Your task to perform on an android device: uninstall "WhatsApp Messenger" Image 0: 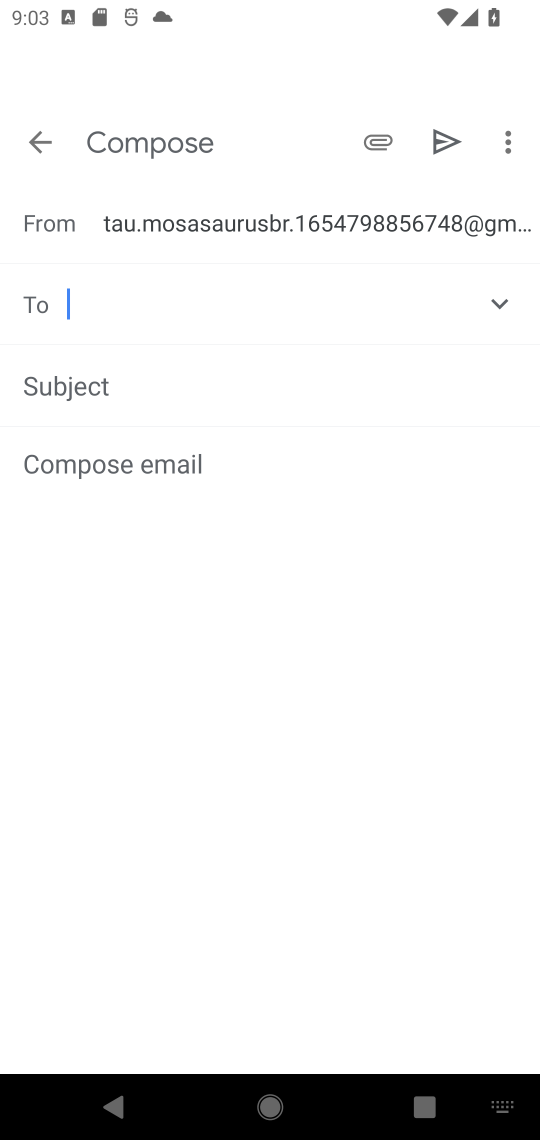
Step 0: press home button
Your task to perform on an android device: uninstall "WhatsApp Messenger" Image 1: 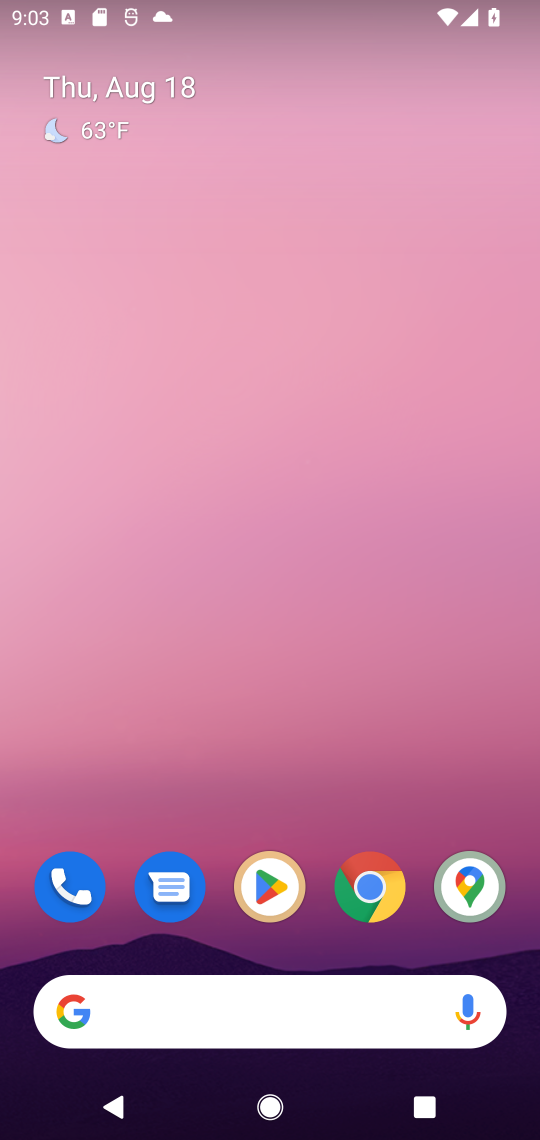
Step 1: click (277, 887)
Your task to perform on an android device: uninstall "WhatsApp Messenger" Image 2: 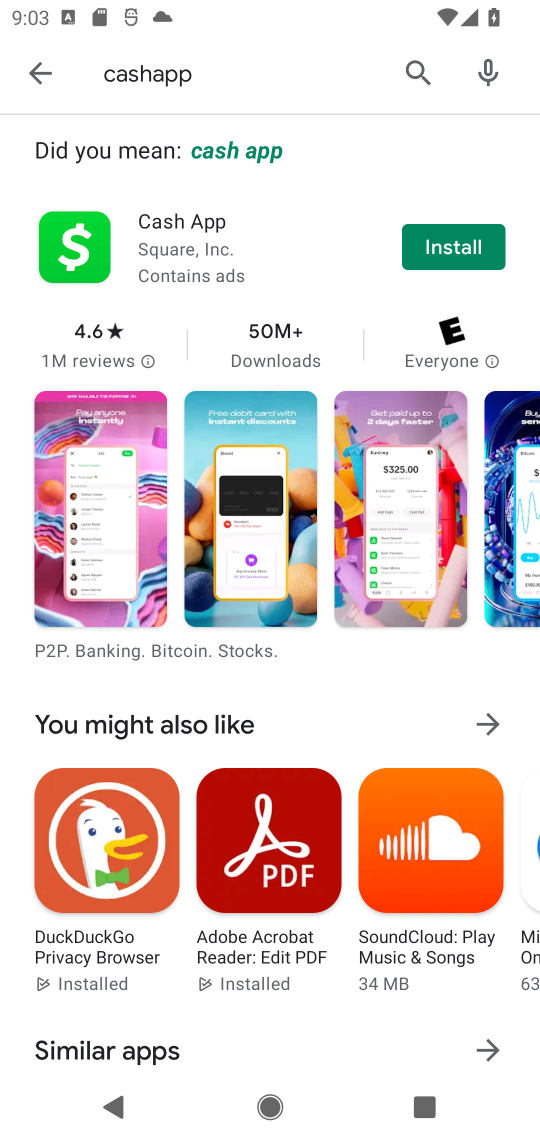
Step 2: click (412, 77)
Your task to perform on an android device: uninstall "WhatsApp Messenger" Image 3: 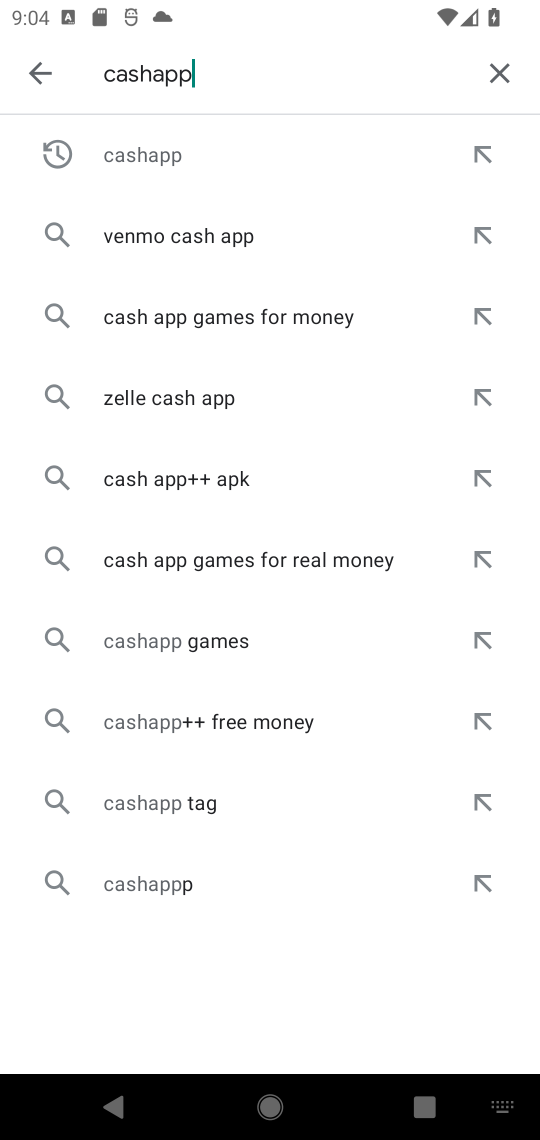
Step 3: click (493, 67)
Your task to perform on an android device: uninstall "WhatsApp Messenger" Image 4: 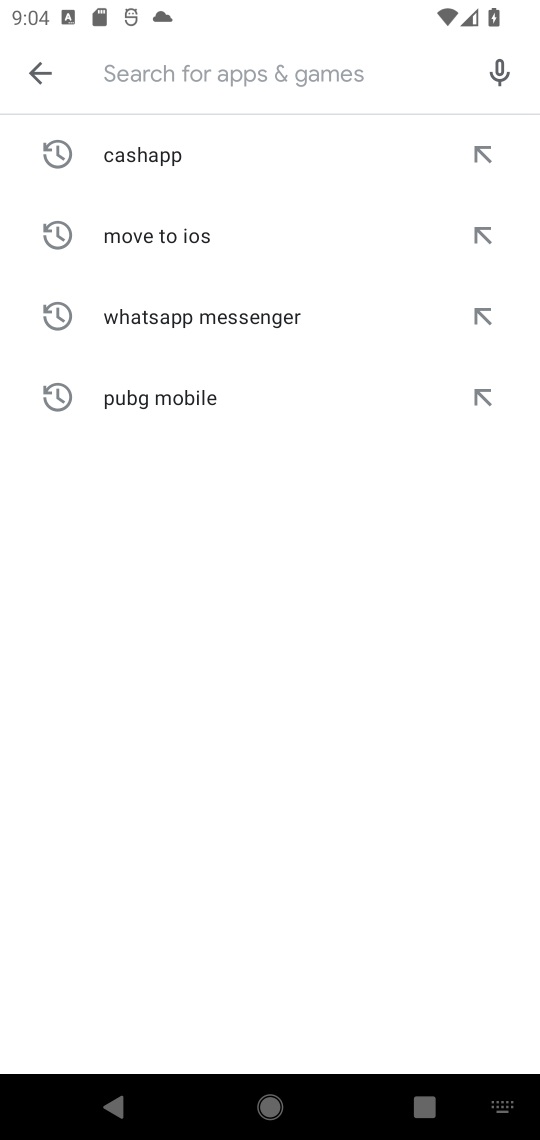
Step 4: type "WhatsApp Messenger"
Your task to perform on an android device: uninstall "WhatsApp Messenger" Image 5: 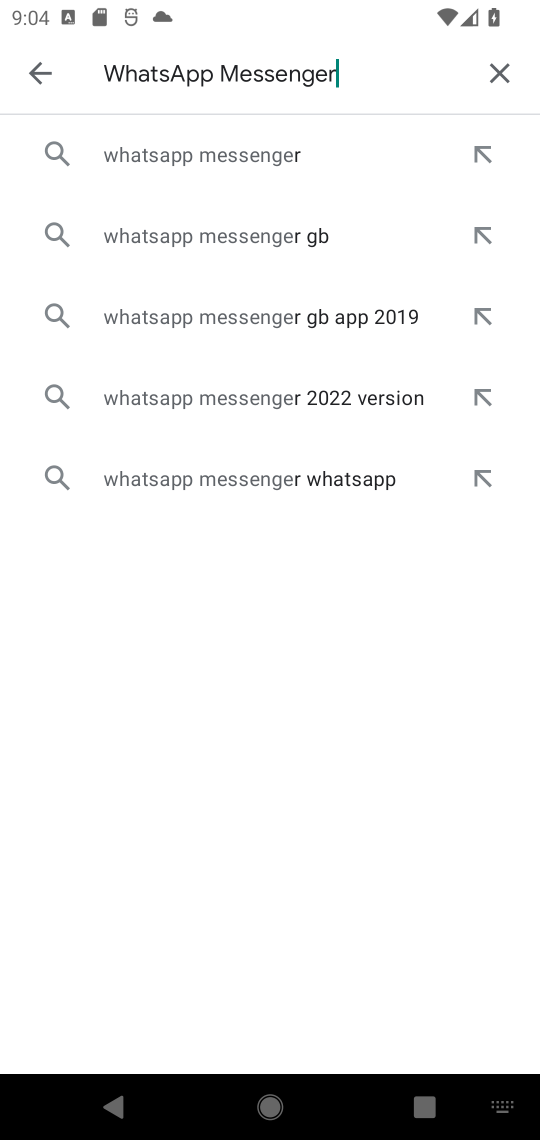
Step 5: type ""
Your task to perform on an android device: uninstall "WhatsApp Messenger" Image 6: 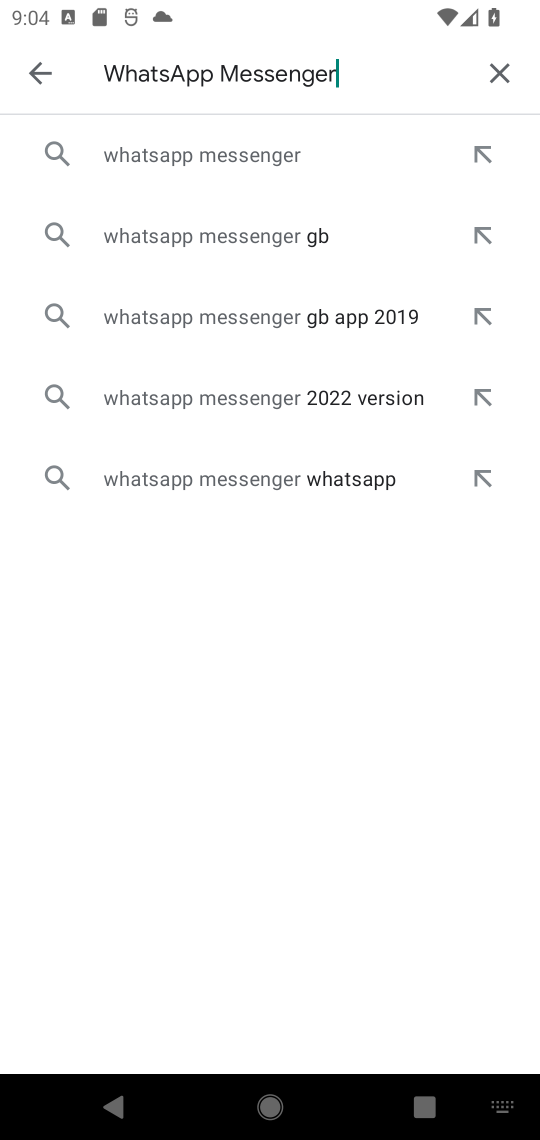
Step 6: click (175, 151)
Your task to perform on an android device: uninstall "WhatsApp Messenger" Image 7: 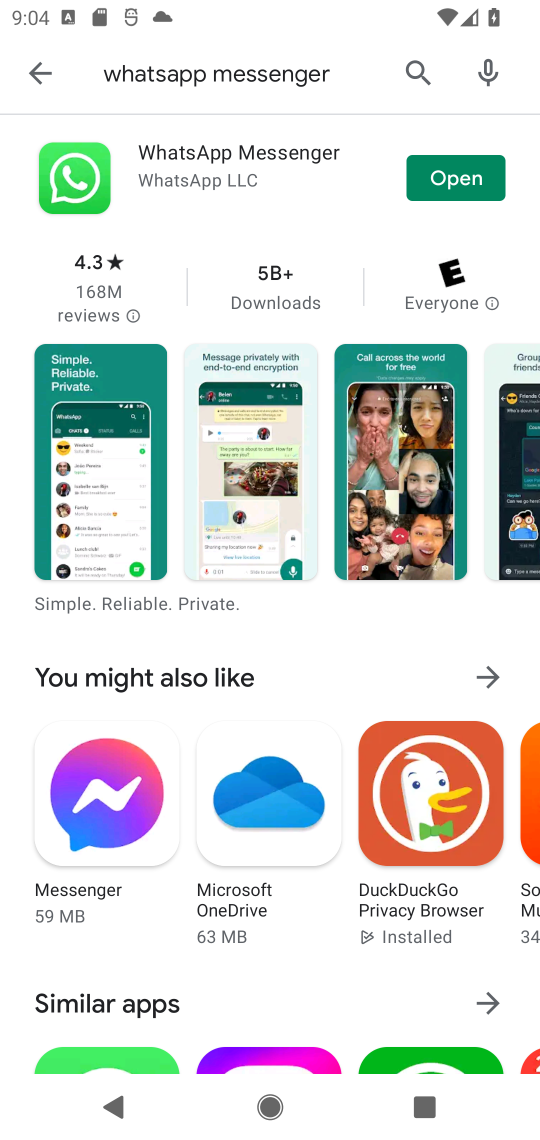
Step 7: click (170, 150)
Your task to perform on an android device: uninstall "WhatsApp Messenger" Image 8: 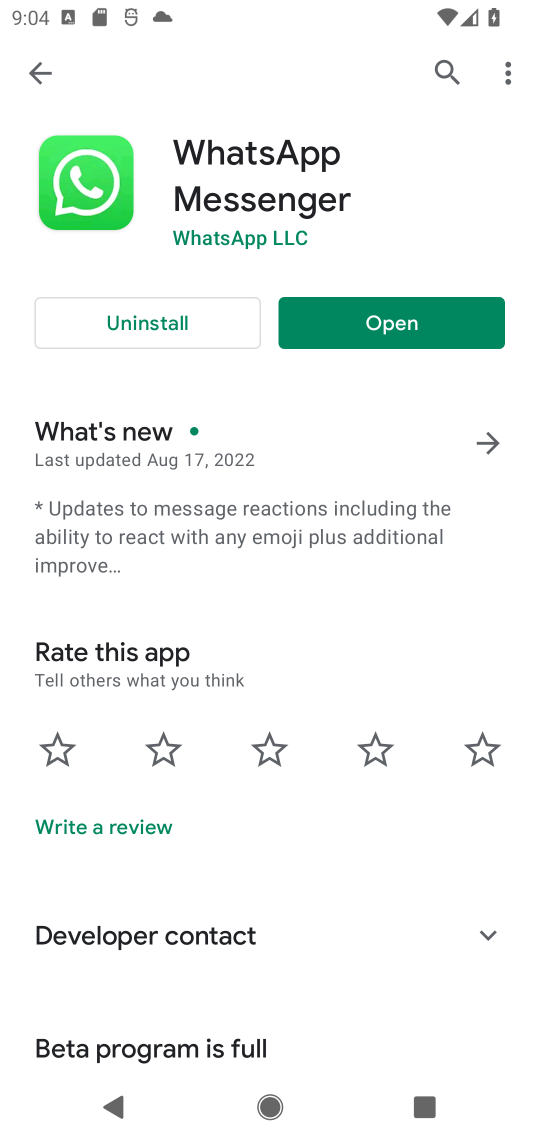
Step 8: click (137, 319)
Your task to perform on an android device: uninstall "WhatsApp Messenger" Image 9: 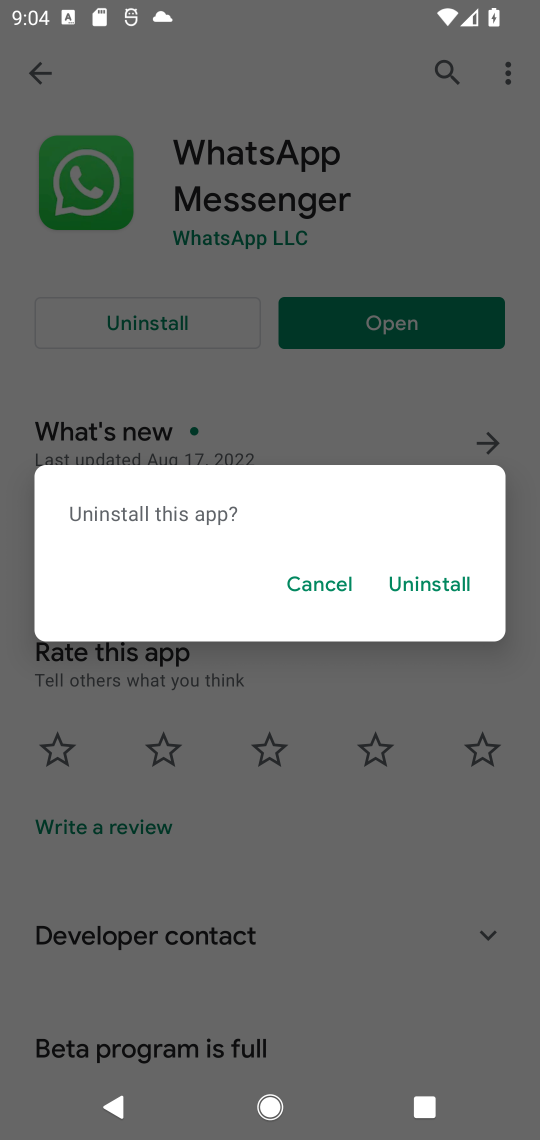
Step 9: click (414, 575)
Your task to perform on an android device: uninstall "WhatsApp Messenger" Image 10: 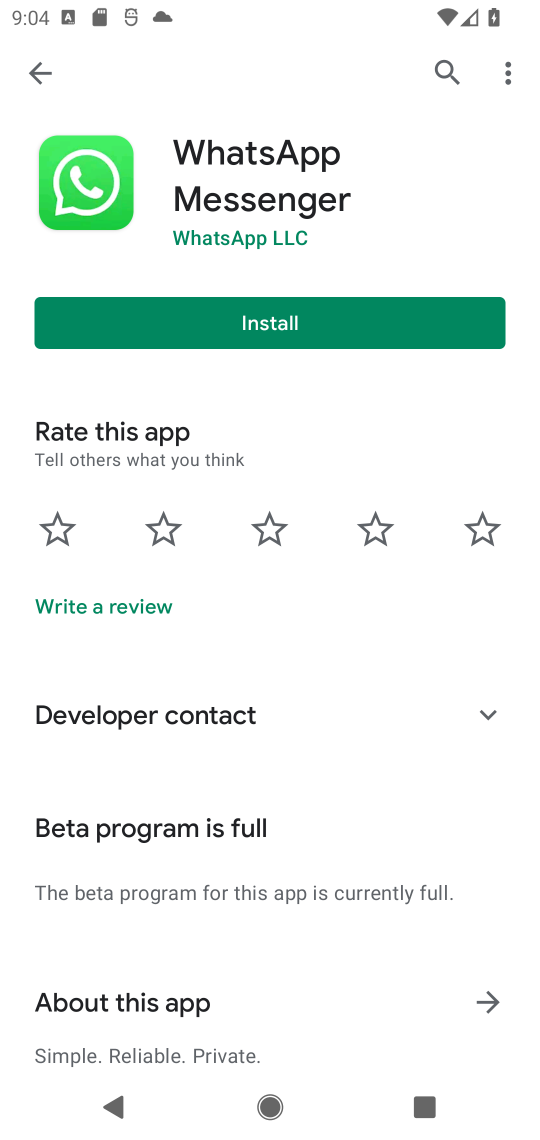
Step 10: task complete